Your task to perform on an android device: change the clock display to show seconds Image 0: 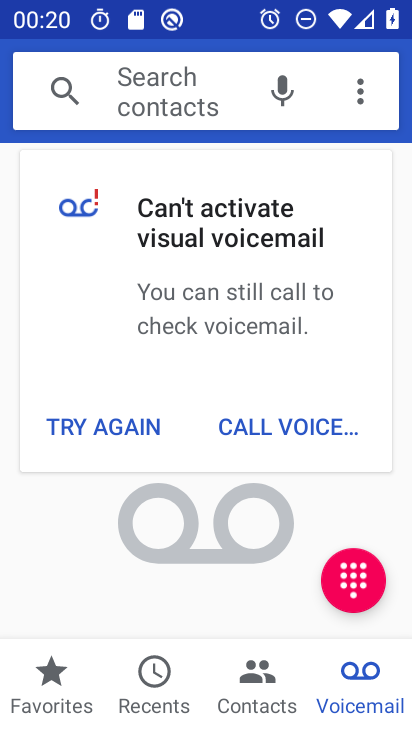
Step 0: press home button
Your task to perform on an android device: change the clock display to show seconds Image 1: 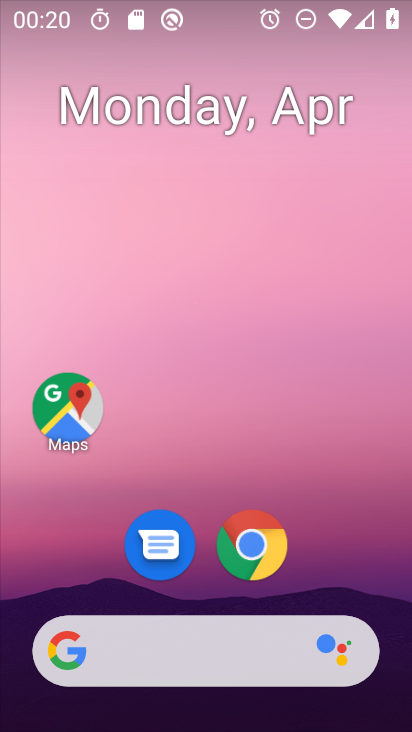
Step 1: drag from (331, 524) to (332, 162)
Your task to perform on an android device: change the clock display to show seconds Image 2: 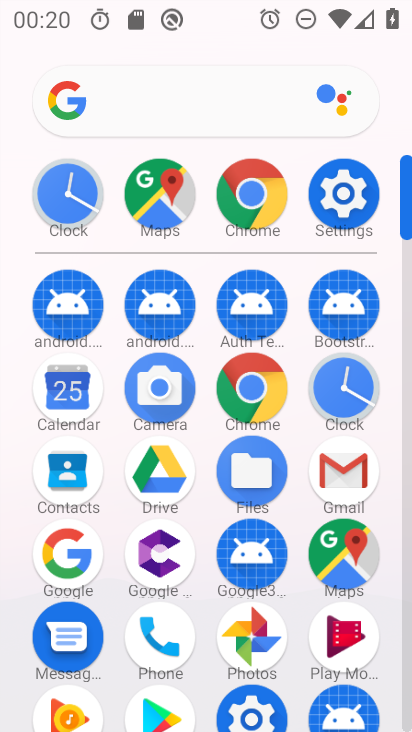
Step 2: click (335, 383)
Your task to perform on an android device: change the clock display to show seconds Image 3: 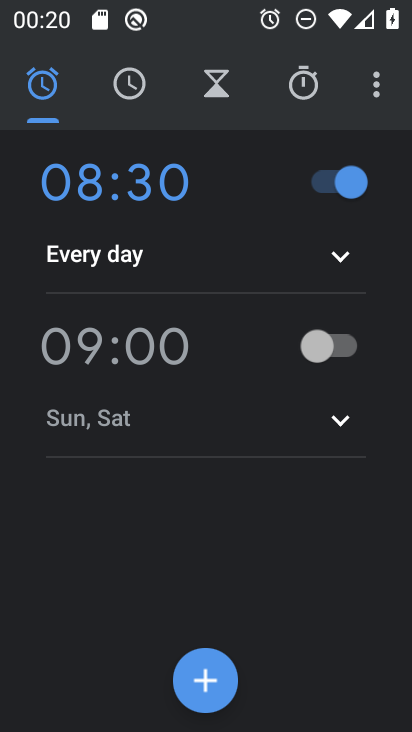
Step 3: click (376, 75)
Your task to perform on an android device: change the clock display to show seconds Image 4: 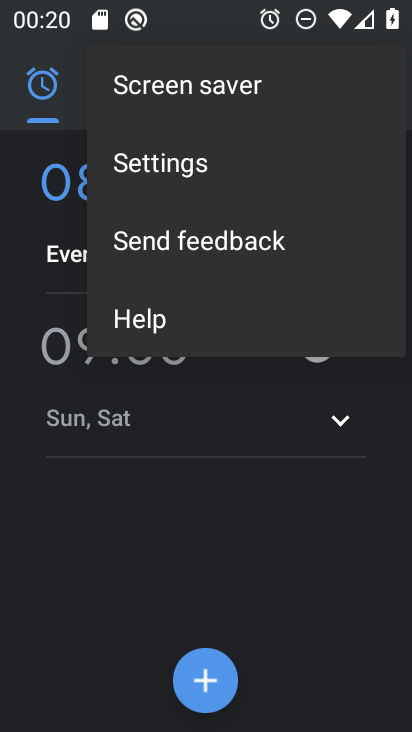
Step 4: click (175, 151)
Your task to perform on an android device: change the clock display to show seconds Image 5: 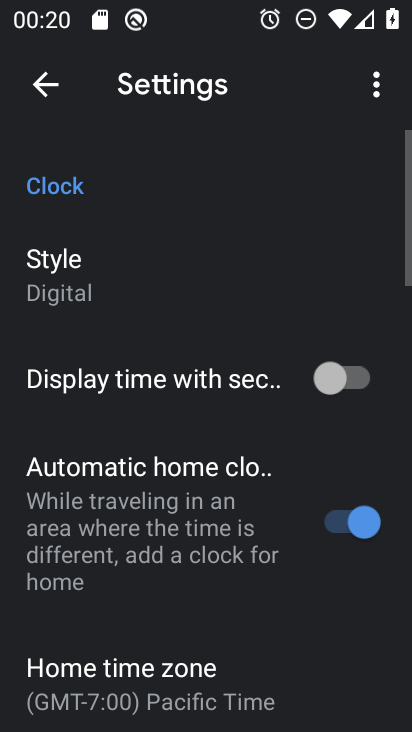
Step 5: click (106, 317)
Your task to perform on an android device: change the clock display to show seconds Image 6: 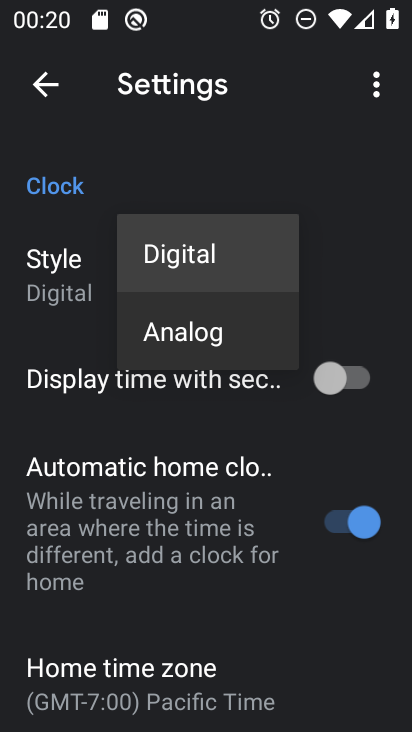
Step 6: click (344, 149)
Your task to perform on an android device: change the clock display to show seconds Image 7: 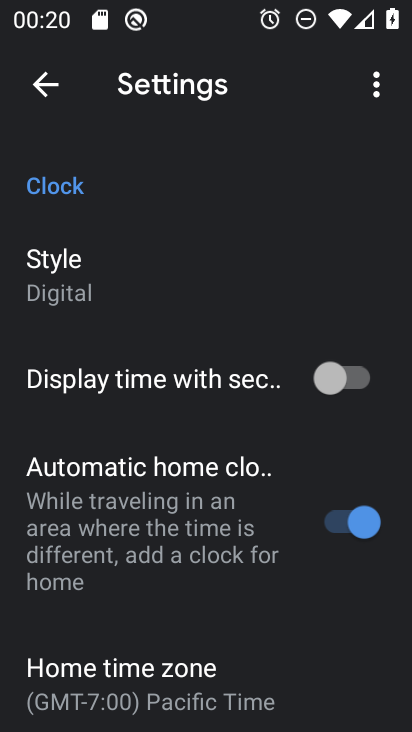
Step 7: click (370, 373)
Your task to perform on an android device: change the clock display to show seconds Image 8: 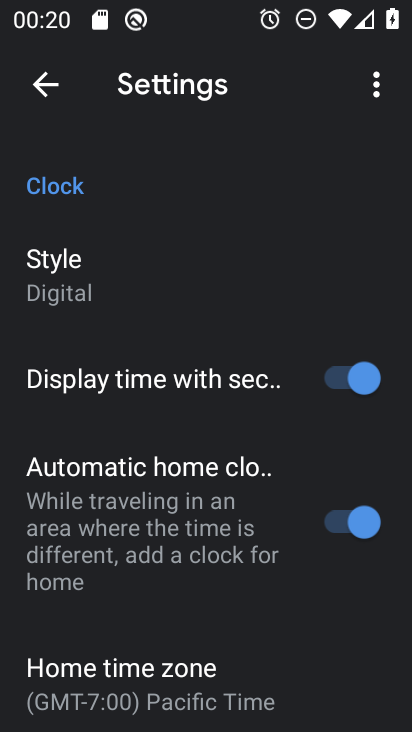
Step 8: task complete